Your task to perform on an android device: Open the calendar and show me this week's events? Image 0: 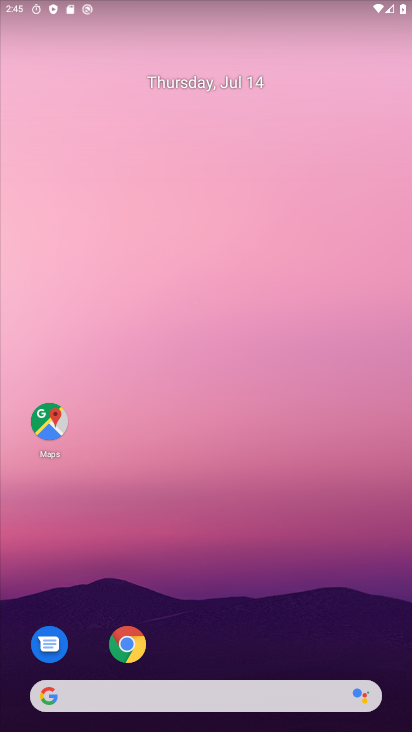
Step 0: drag from (26, 715) to (247, 14)
Your task to perform on an android device: Open the calendar and show me this week's events? Image 1: 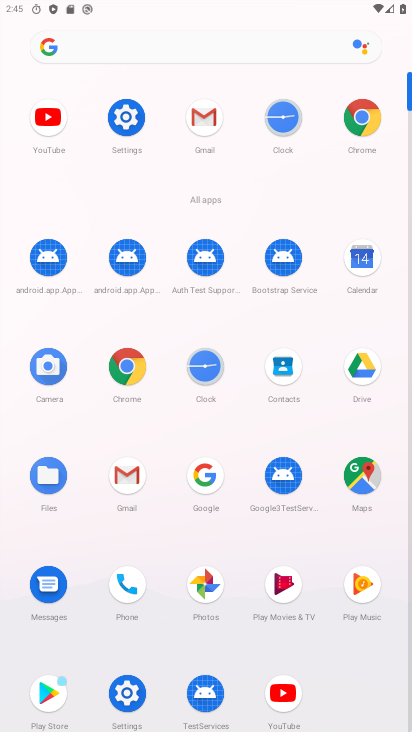
Step 1: click (372, 267)
Your task to perform on an android device: Open the calendar and show me this week's events? Image 2: 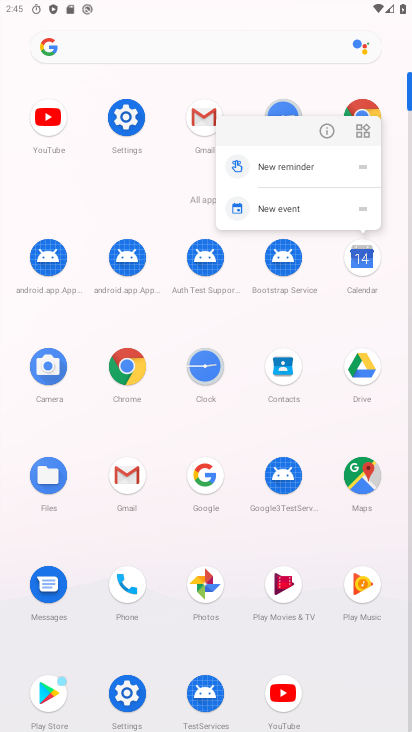
Step 2: click (359, 253)
Your task to perform on an android device: Open the calendar and show me this week's events? Image 3: 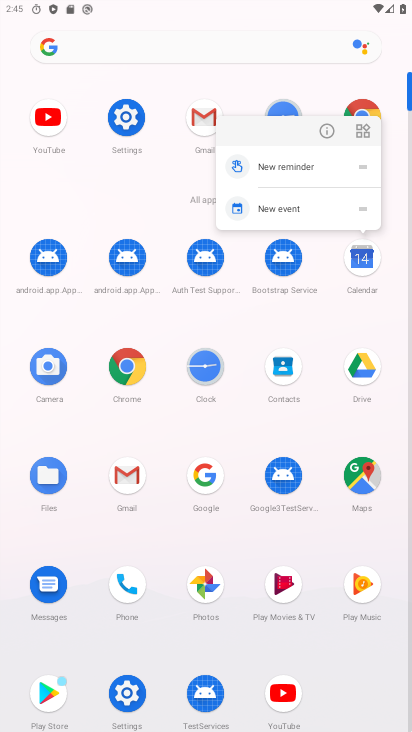
Step 3: click (359, 253)
Your task to perform on an android device: Open the calendar and show me this week's events? Image 4: 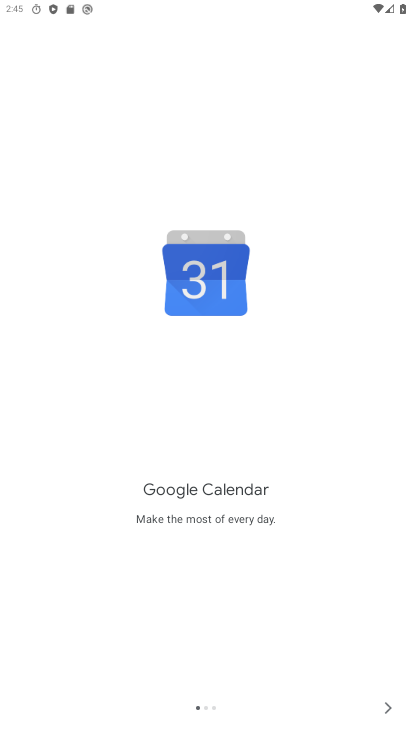
Step 4: click (384, 703)
Your task to perform on an android device: Open the calendar and show me this week's events? Image 5: 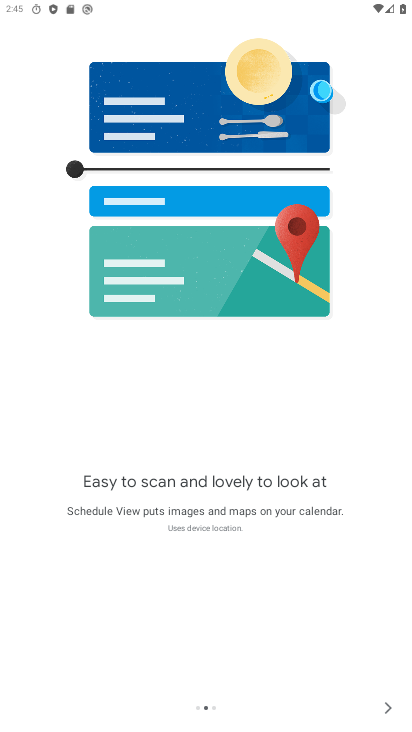
Step 5: click (388, 705)
Your task to perform on an android device: Open the calendar and show me this week's events? Image 6: 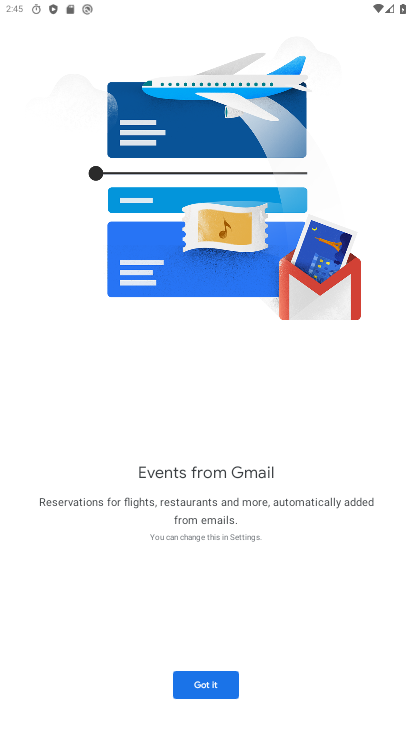
Step 6: click (196, 675)
Your task to perform on an android device: Open the calendar and show me this week's events? Image 7: 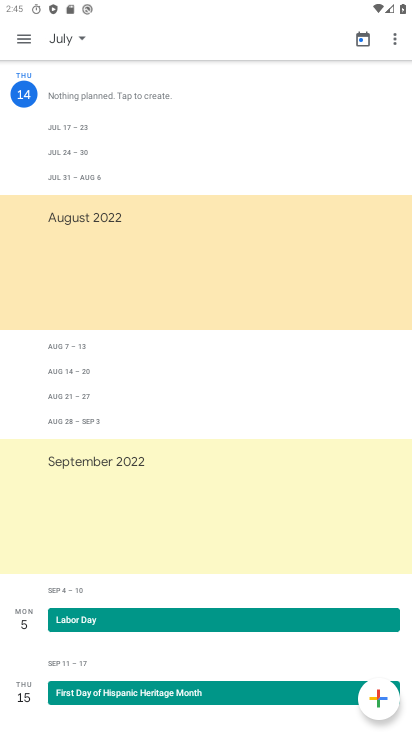
Step 7: click (67, 39)
Your task to perform on an android device: Open the calendar and show me this week's events? Image 8: 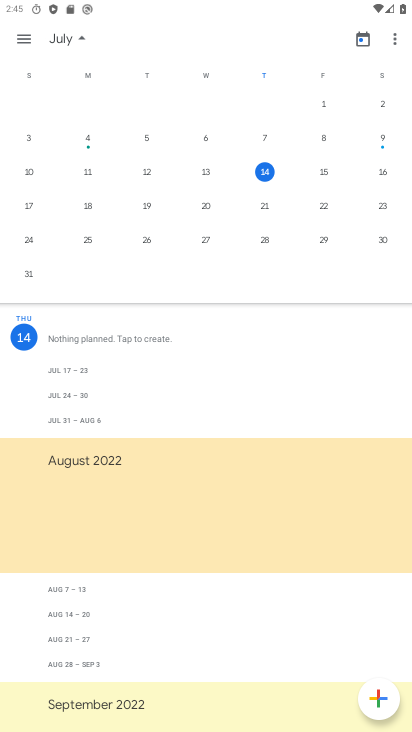
Step 8: task complete